Your task to perform on an android device: empty trash in google photos Image 0: 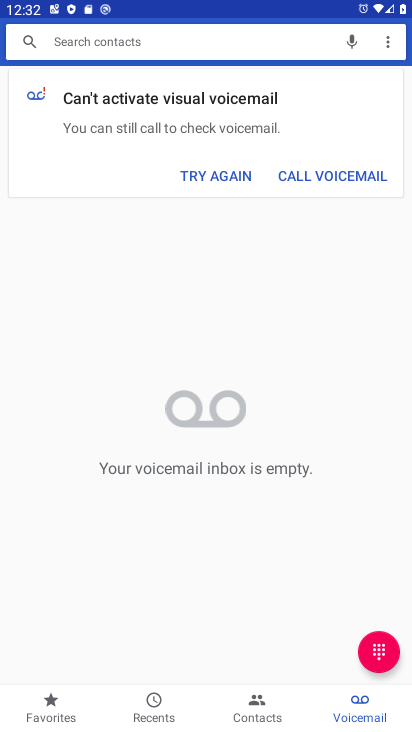
Step 0: press home button
Your task to perform on an android device: empty trash in google photos Image 1: 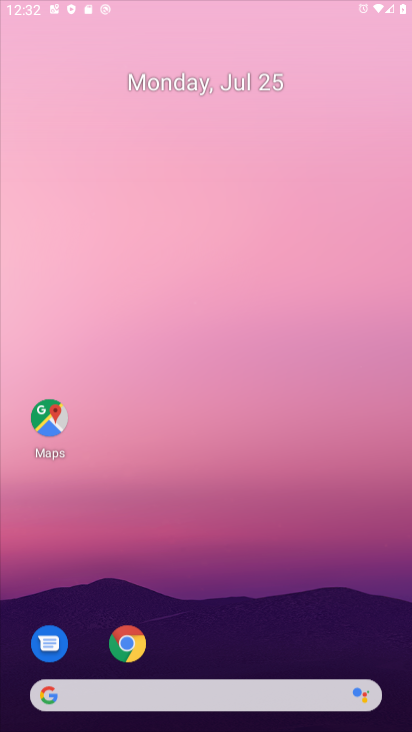
Step 1: drag from (369, 635) to (60, 2)
Your task to perform on an android device: empty trash in google photos Image 2: 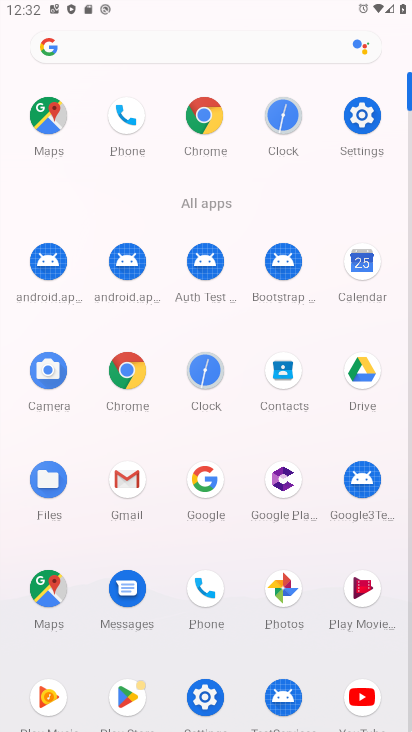
Step 2: click (307, 593)
Your task to perform on an android device: empty trash in google photos Image 3: 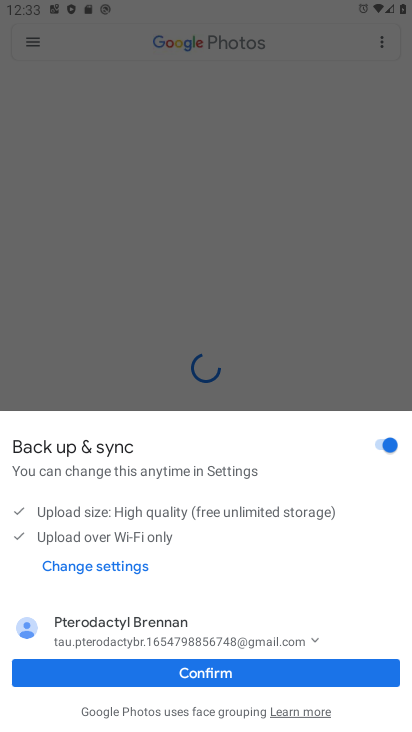
Step 3: click (152, 668)
Your task to perform on an android device: empty trash in google photos Image 4: 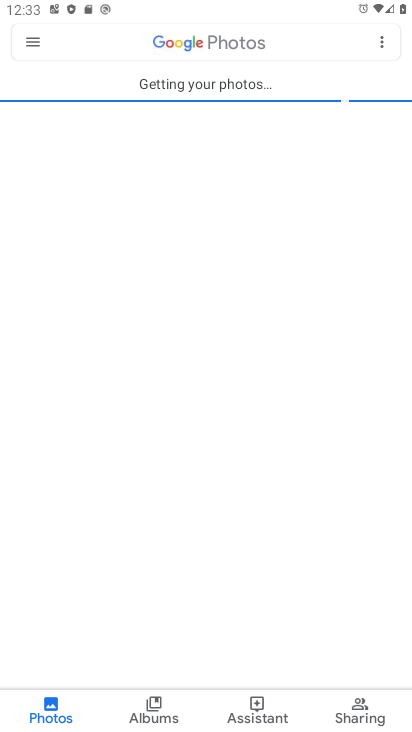
Step 4: click (34, 38)
Your task to perform on an android device: empty trash in google photos Image 5: 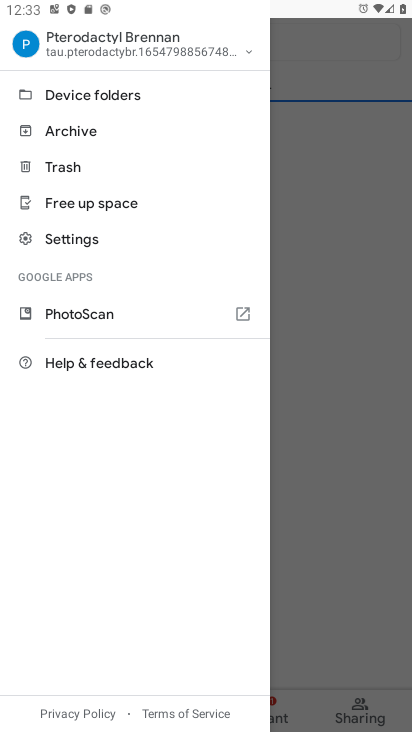
Step 5: click (76, 170)
Your task to perform on an android device: empty trash in google photos Image 6: 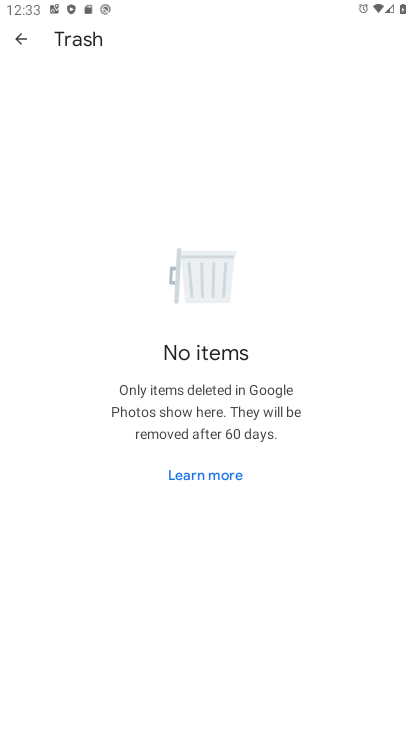
Step 6: task complete